Your task to perform on an android device: Go to Yahoo.com Image 0: 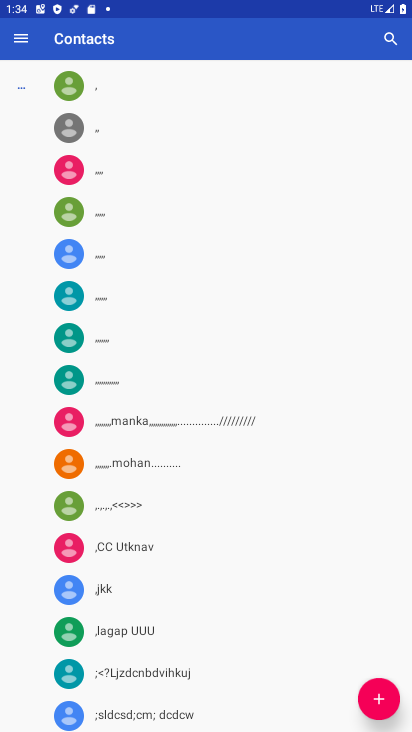
Step 0: press home button
Your task to perform on an android device: Go to Yahoo.com Image 1: 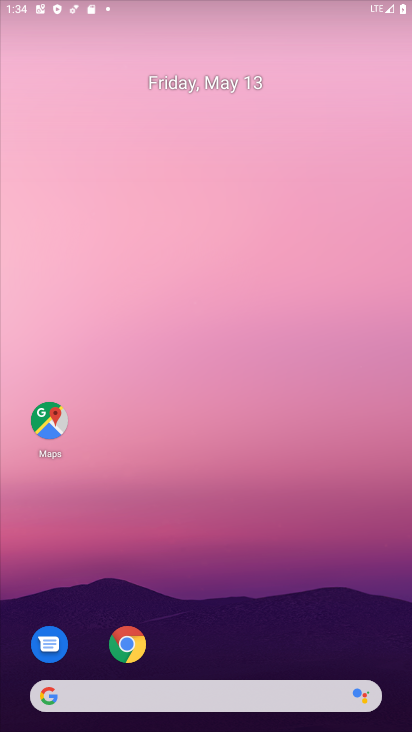
Step 1: drag from (323, 584) to (163, 40)
Your task to perform on an android device: Go to Yahoo.com Image 2: 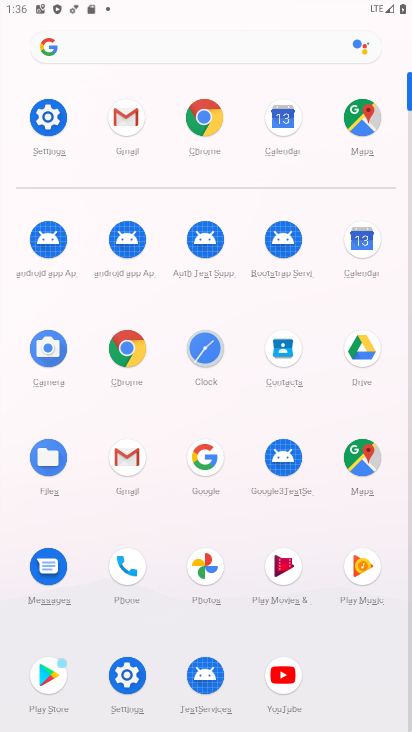
Step 2: click (134, 367)
Your task to perform on an android device: Go to Yahoo.com Image 3: 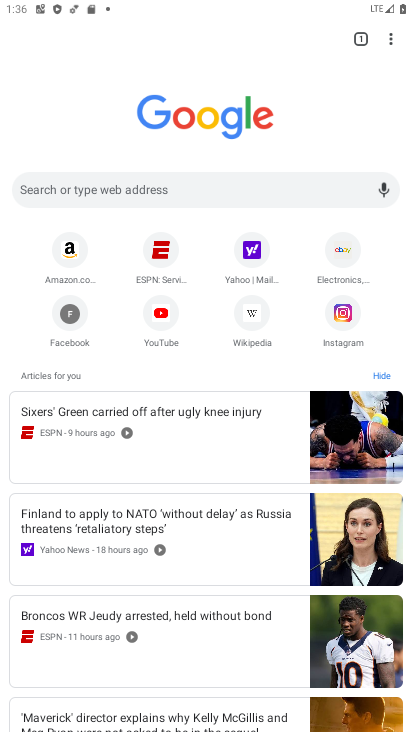
Step 3: click (239, 253)
Your task to perform on an android device: Go to Yahoo.com Image 4: 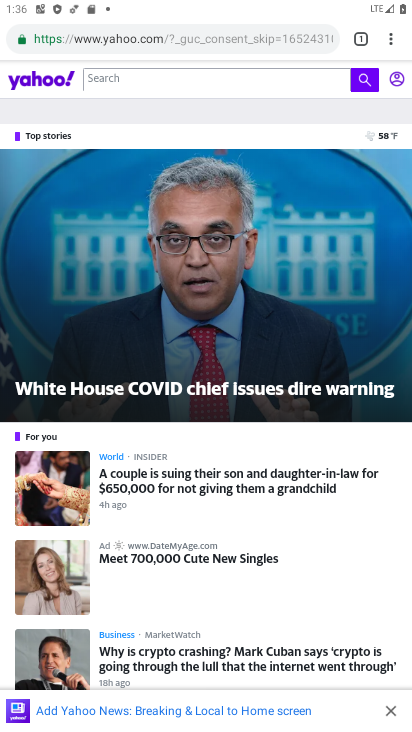
Step 4: task complete